Your task to perform on an android device: Turn off the flashlight Image 0: 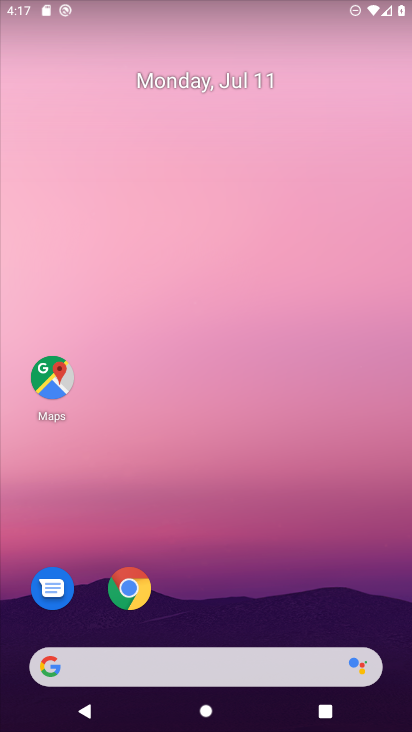
Step 0: press home button
Your task to perform on an android device: Turn off the flashlight Image 1: 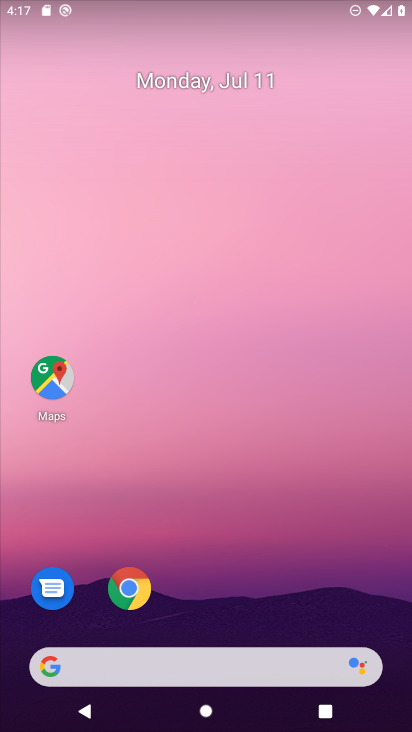
Step 1: task complete